Your task to perform on an android device: toggle javascript in the chrome app Image 0: 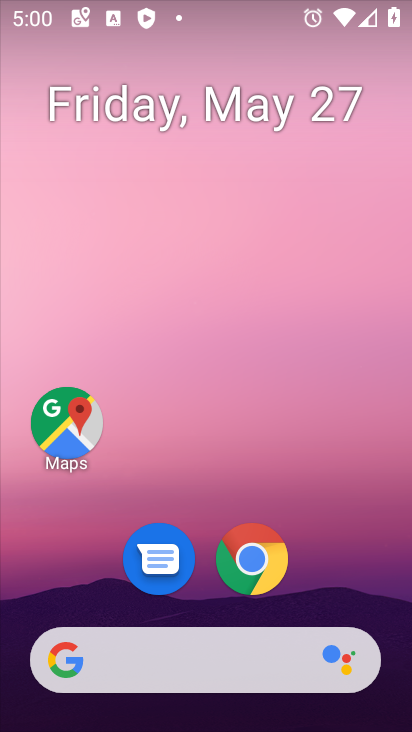
Step 0: drag from (318, 706) to (310, 11)
Your task to perform on an android device: toggle javascript in the chrome app Image 1: 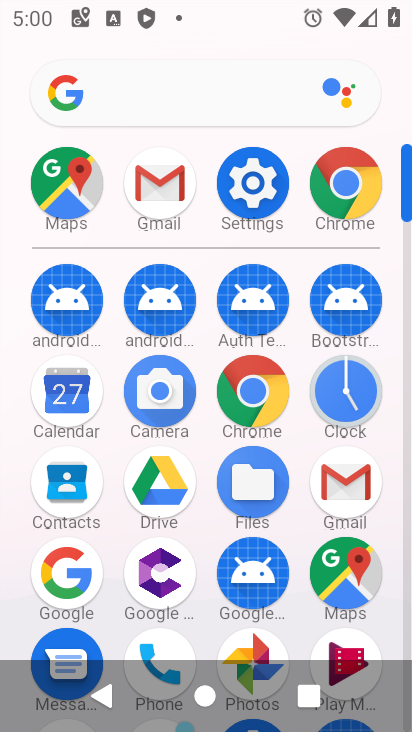
Step 1: click (259, 397)
Your task to perform on an android device: toggle javascript in the chrome app Image 2: 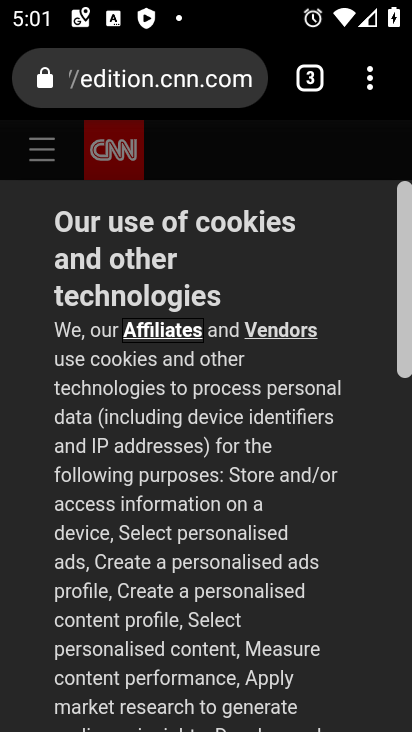
Step 2: drag from (379, 73) to (92, 636)
Your task to perform on an android device: toggle javascript in the chrome app Image 3: 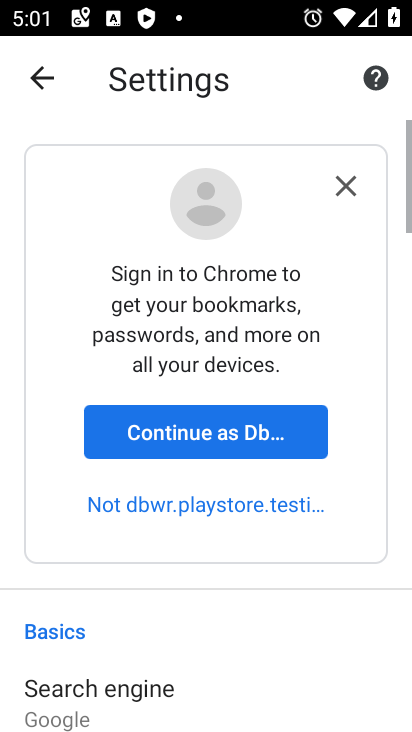
Step 3: drag from (296, 681) to (274, 0)
Your task to perform on an android device: toggle javascript in the chrome app Image 4: 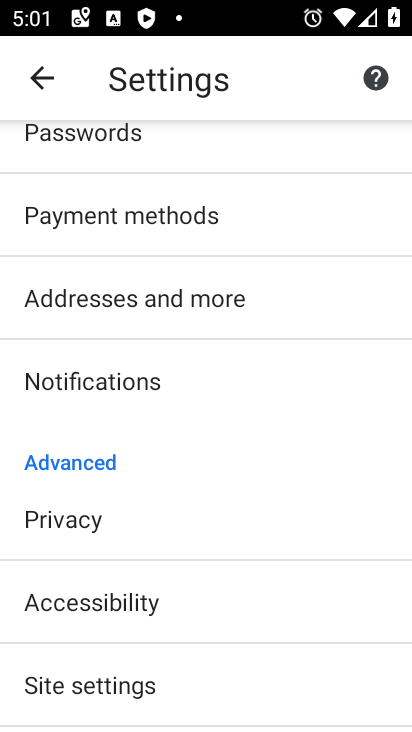
Step 4: drag from (139, 656) to (192, 418)
Your task to perform on an android device: toggle javascript in the chrome app Image 5: 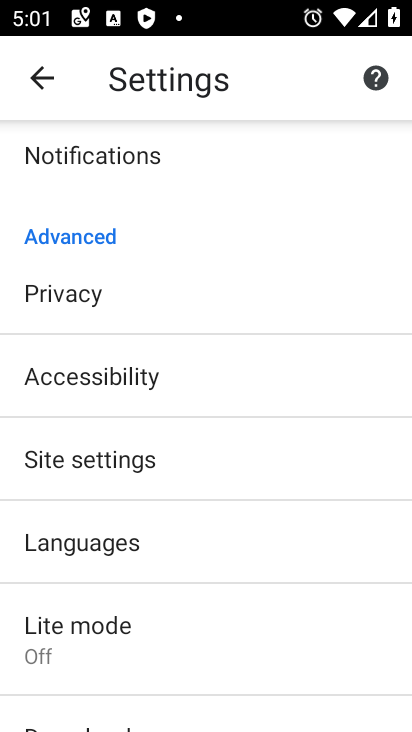
Step 5: click (174, 463)
Your task to perform on an android device: toggle javascript in the chrome app Image 6: 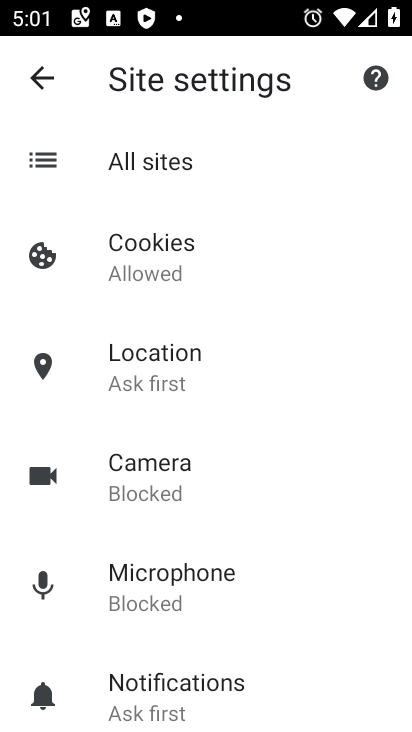
Step 6: drag from (231, 609) to (288, 90)
Your task to perform on an android device: toggle javascript in the chrome app Image 7: 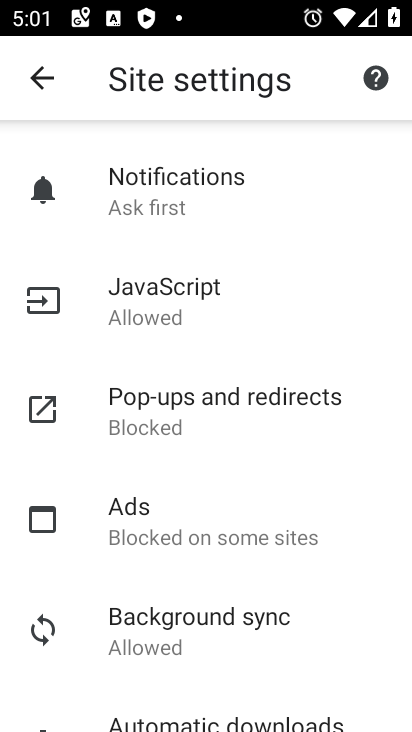
Step 7: click (241, 692)
Your task to perform on an android device: toggle javascript in the chrome app Image 8: 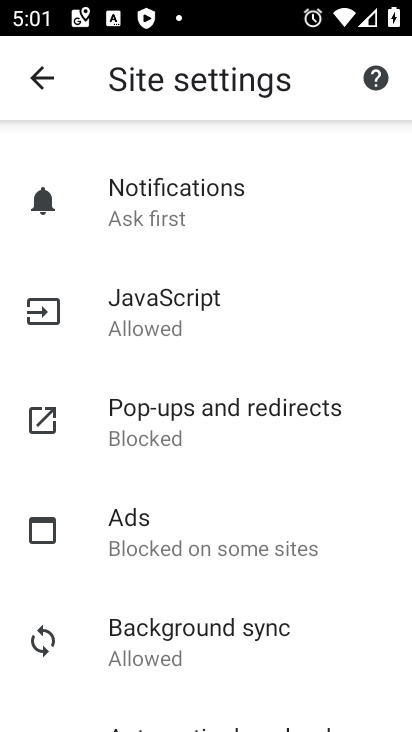
Step 8: click (203, 303)
Your task to perform on an android device: toggle javascript in the chrome app Image 9: 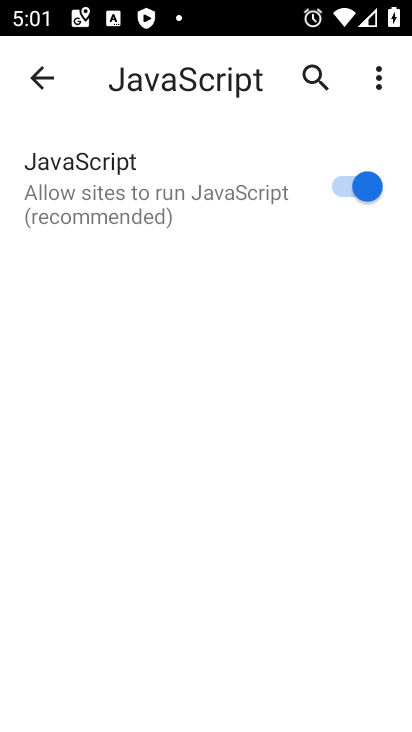
Step 9: click (344, 181)
Your task to perform on an android device: toggle javascript in the chrome app Image 10: 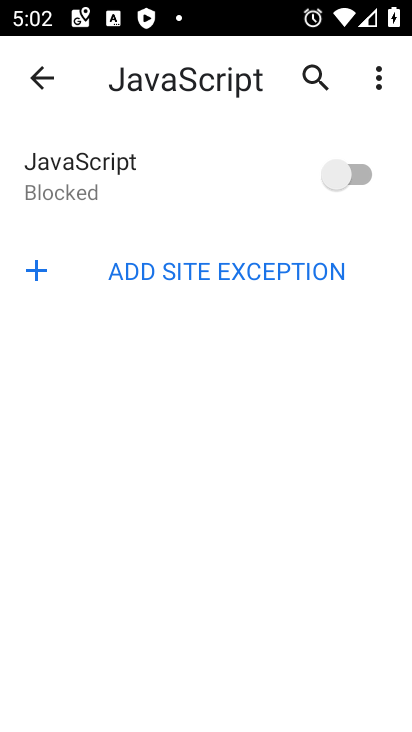
Step 10: task complete